Your task to perform on an android device: create a new album in the google photos Image 0: 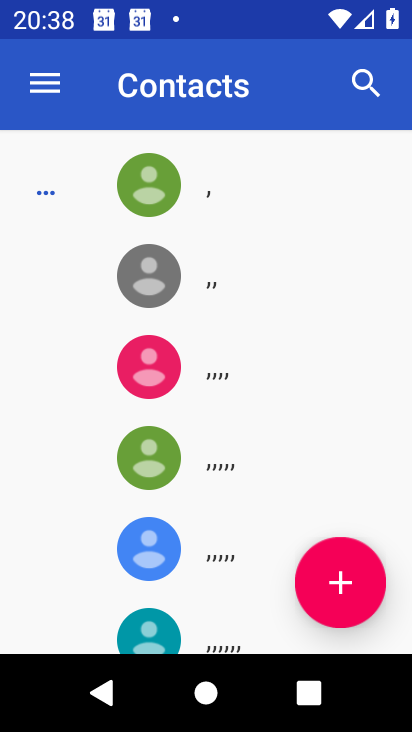
Step 0: press home button
Your task to perform on an android device: create a new album in the google photos Image 1: 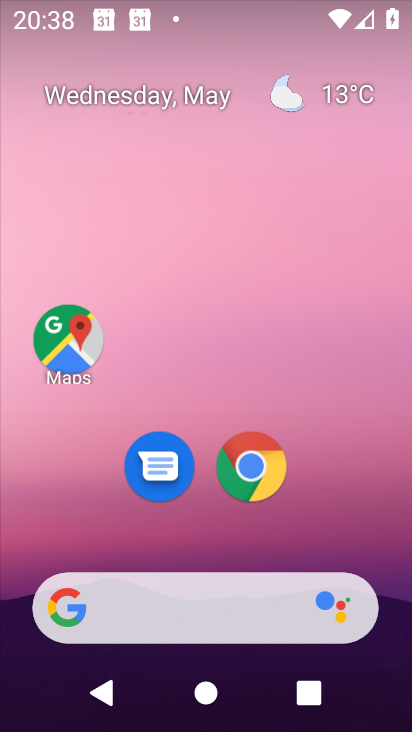
Step 1: drag from (208, 542) to (223, 42)
Your task to perform on an android device: create a new album in the google photos Image 2: 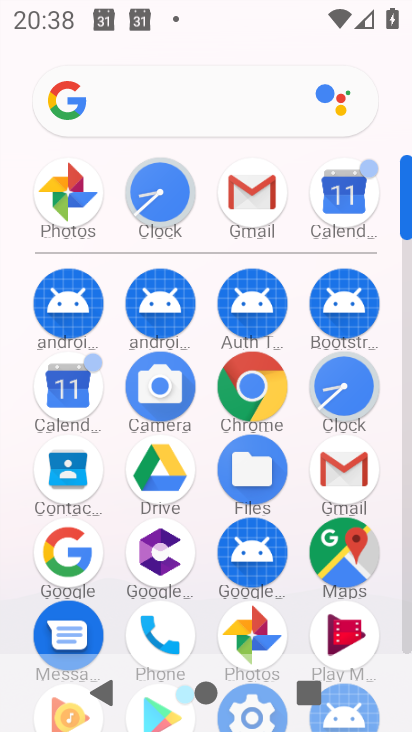
Step 2: click (247, 626)
Your task to perform on an android device: create a new album in the google photos Image 3: 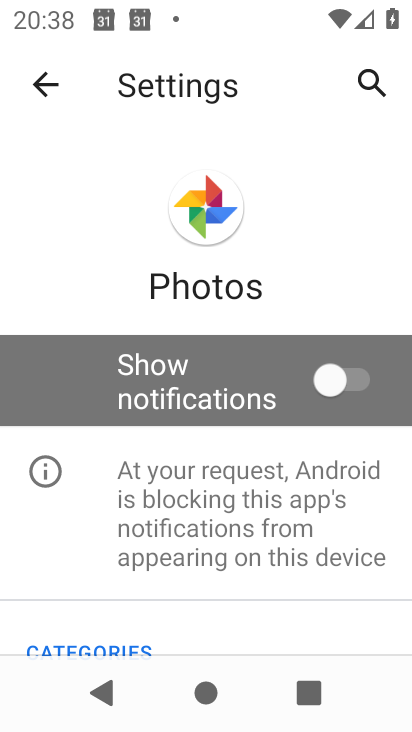
Step 3: click (63, 89)
Your task to perform on an android device: create a new album in the google photos Image 4: 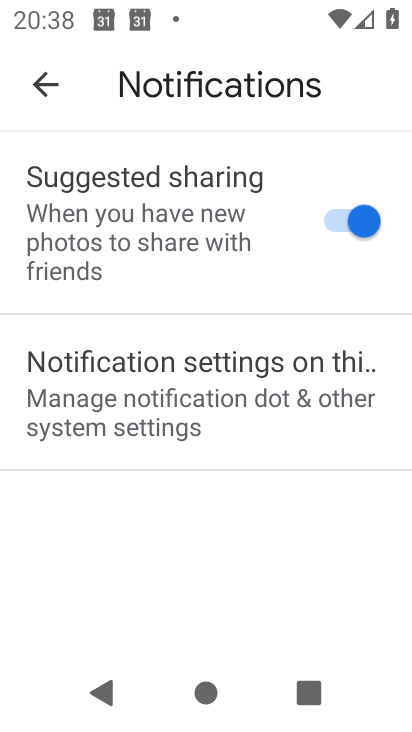
Step 4: click (53, 93)
Your task to perform on an android device: create a new album in the google photos Image 5: 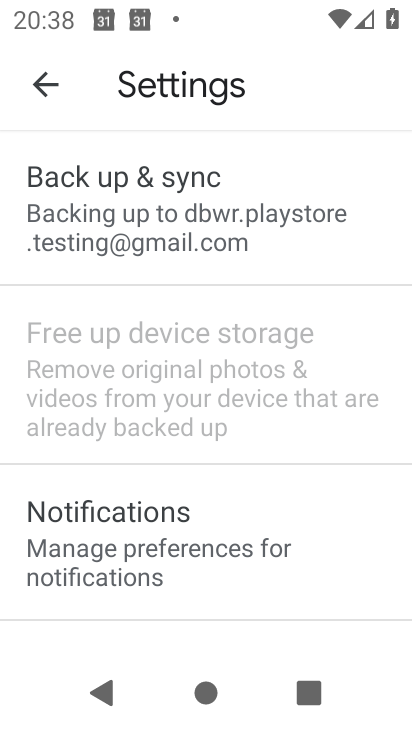
Step 5: click (53, 93)
Your task to perform on an android device: create a new album in the google photos Image 6: 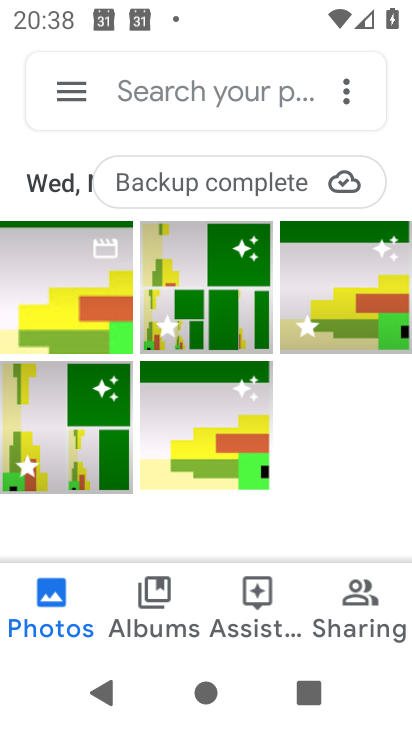
Step 6: click (150, 598)
Your task to perform on an android device: create a new album in the google photos Image 7: 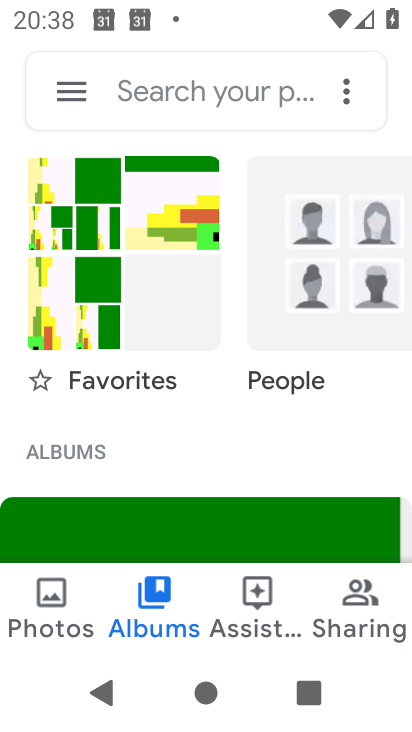
Step 7: click (350, 84)
Your task to perform on an android device: create a new album in the google photos Image 8: 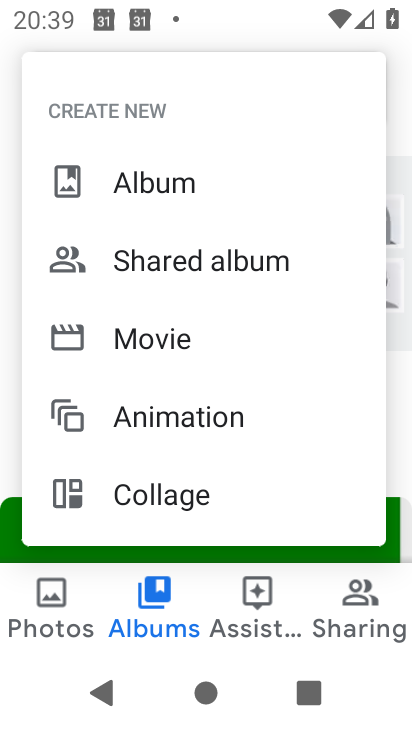
Step 8: click (199, 184)
Your task to perform on an android device: create a new album in the google photos Image 9: 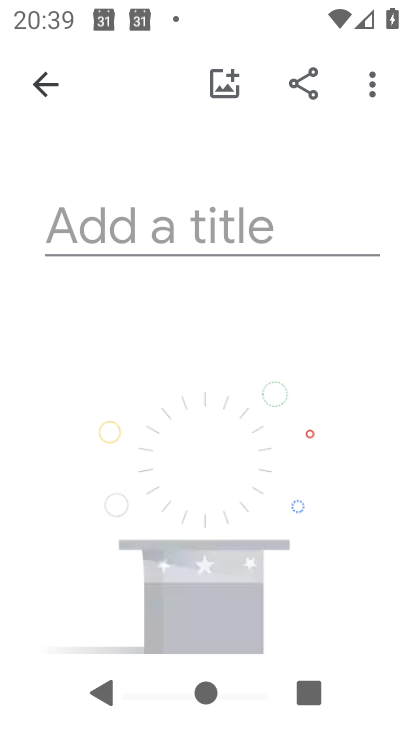
Step 9: drag from (215, 593) to (233, 151)
Your task to perform on an android device: create a new album in the google photos Image 10: 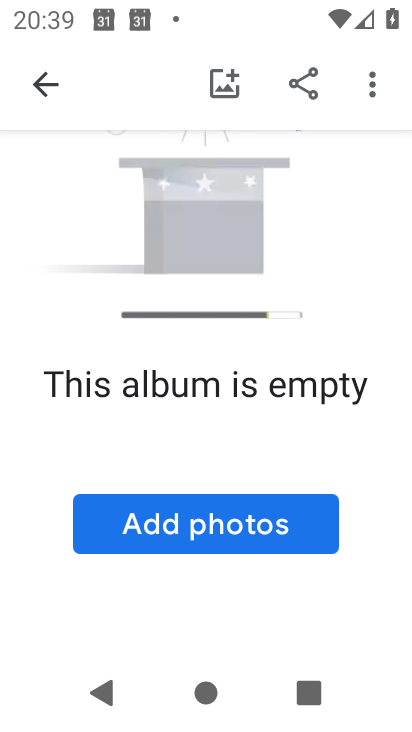
Step 10: click (210, 539)
Your task to perform on an android device: create a new album in the google photos Image 11: 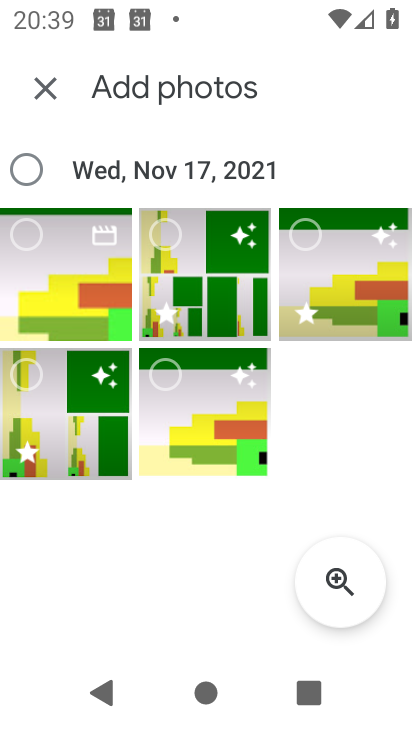
Step 11: click (30, 161)
Your task to perform on an android device: create a new album in the google photos Image 12: 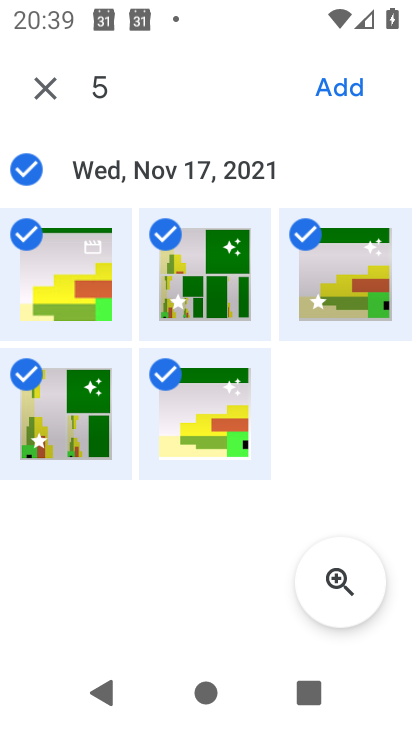
Step 12: click (340, 89)
Your task to perform on an android device: create a new album in the google photos Image 13: 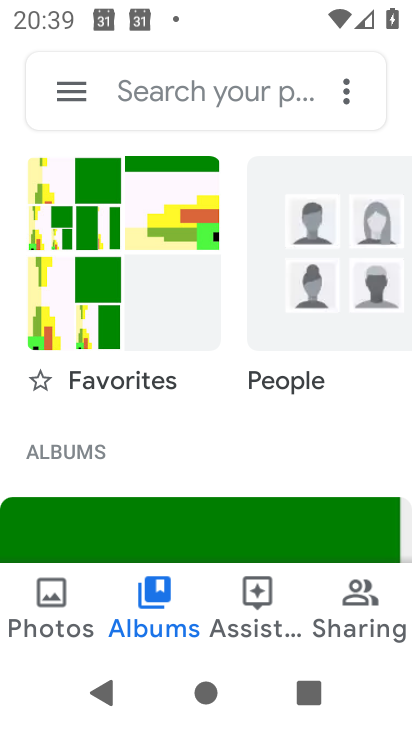
Step 13: click (348, 89)
Your task to perform on an android device: create a new album in the google photos Image 14: 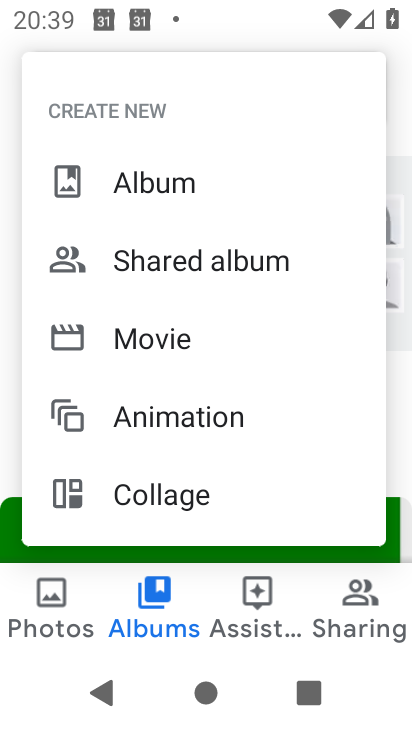
Step 14: click (197, 185)
Your task to perform on an android device: create a new album in the google photos Image 15: 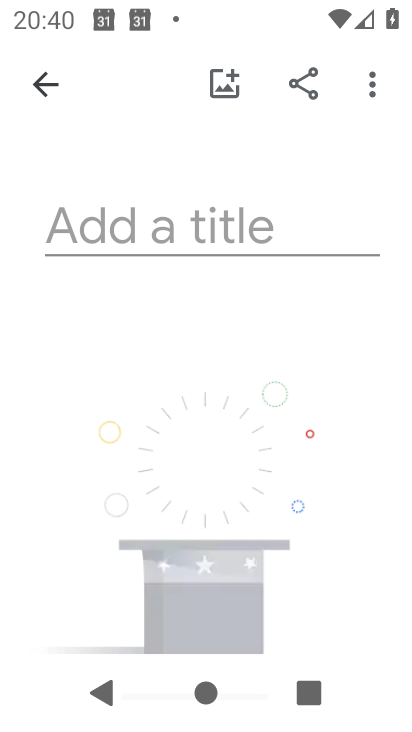
Step 15: drag from (190, 549) to (229, 138)
Your task to perform on an android device: create a new album in the google photos Image 16: 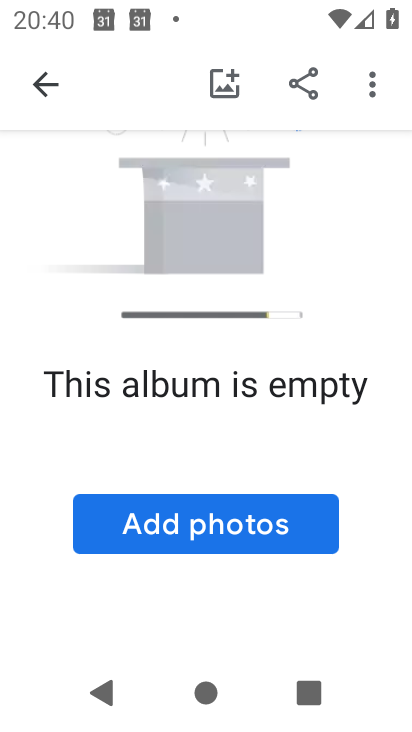
Step 16: click (208, 527)
Your task to perform on an android device: create a new album in the google photos Image 17: 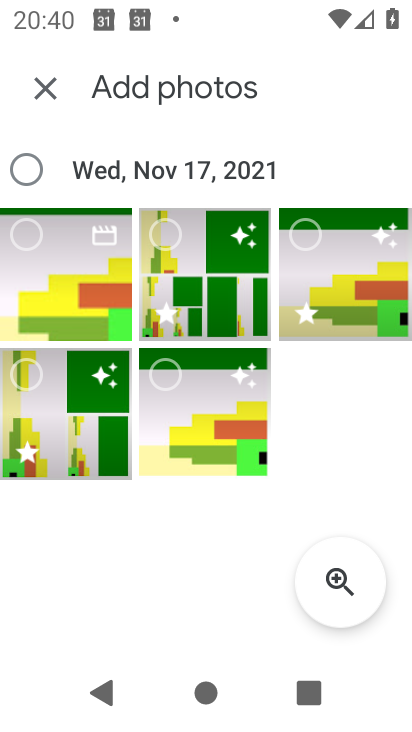
Step 17: click (21, 167)
Your task to perform on an android device: create a new album in the google photos Image 18: 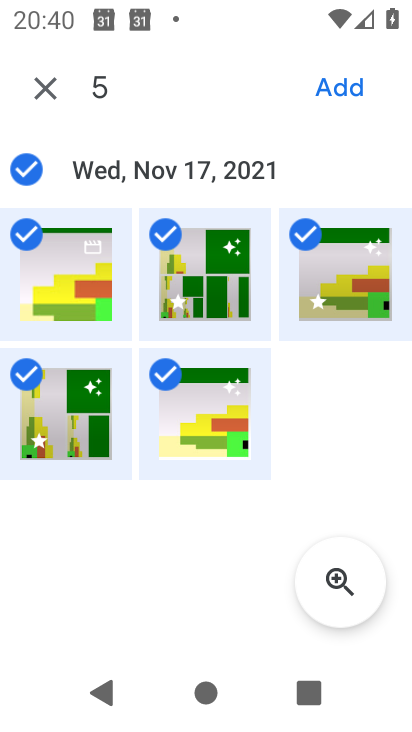
Step 18: click (341, 85)
Your task to perform on an android device: create a new album in the google photos Image 19: 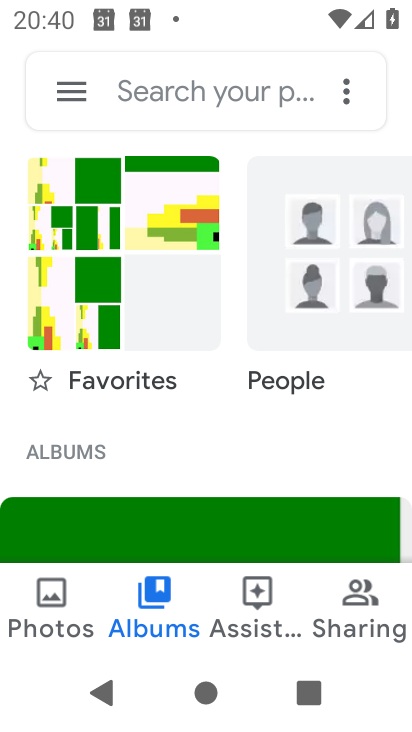
Step 19: click (344, 82)
Your task to perform on an android device: create a new album in the google photos Image 20: 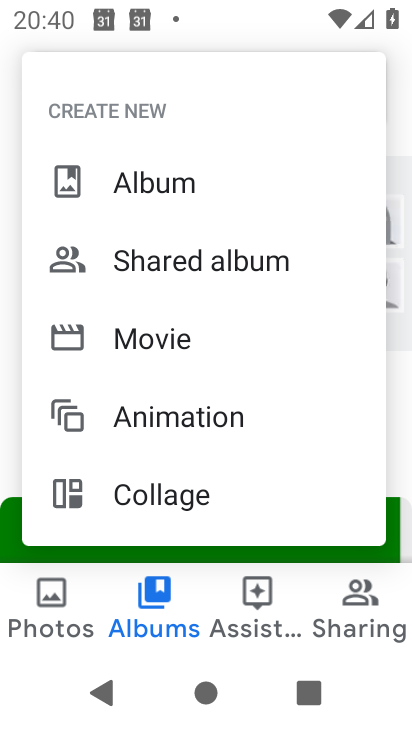
Step 20: click (204, 186)
Your task to perform on an android device: create a new album in the google photos Image 21: 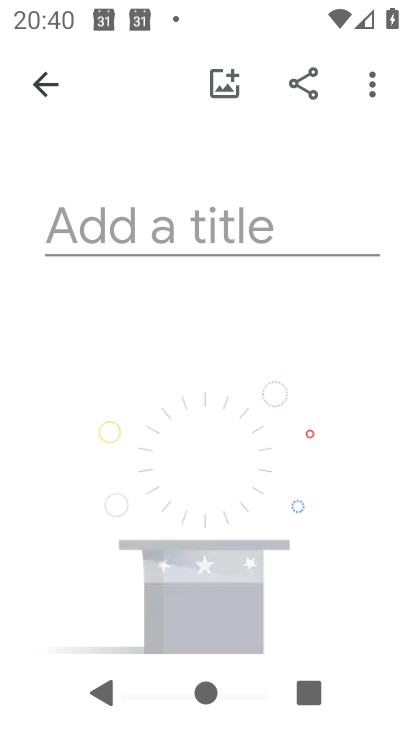
Step 21: drag from (204, 494) to (222, 182)
Your task to perform on an android device: create a new album in the google photos Image 22: 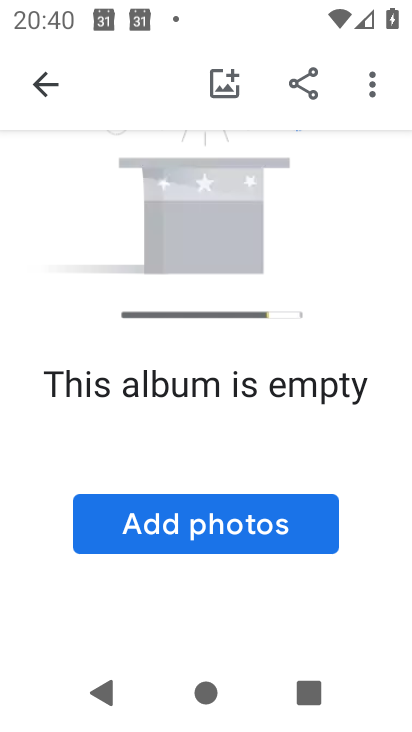
Step 22: click (206, 533)
Your task to perform on an android device: create a new album in the google photos Image 23: 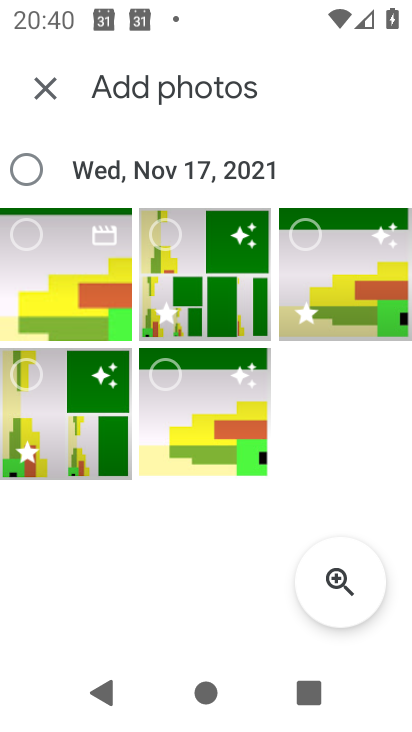
Step 23: click (22, 151)
Your task to perform on an android device: create a new album in the google photos Image 24: 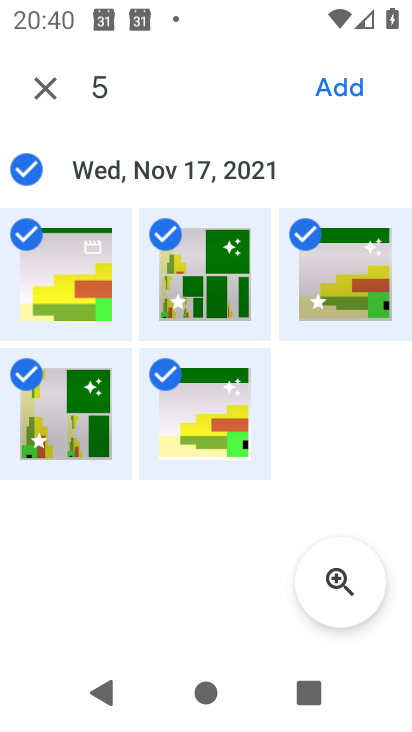
Step 24: click (343, 79)
Your task to perform on an android device: create a new album in the google photos Image 25: 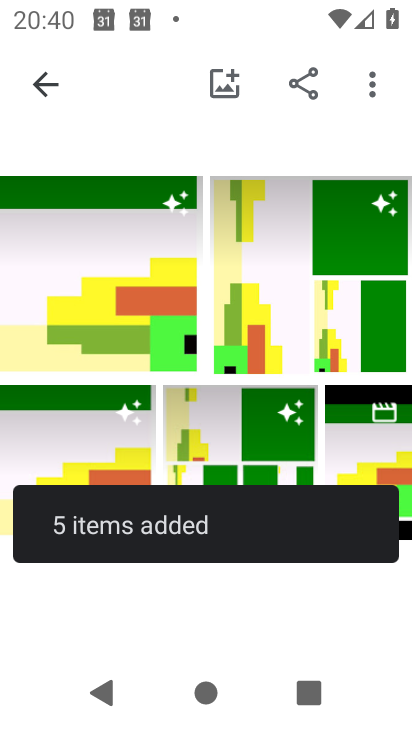
Step 25: task complete